Your task to perform on an android device: Show me popular videos on Youtube Image 0: 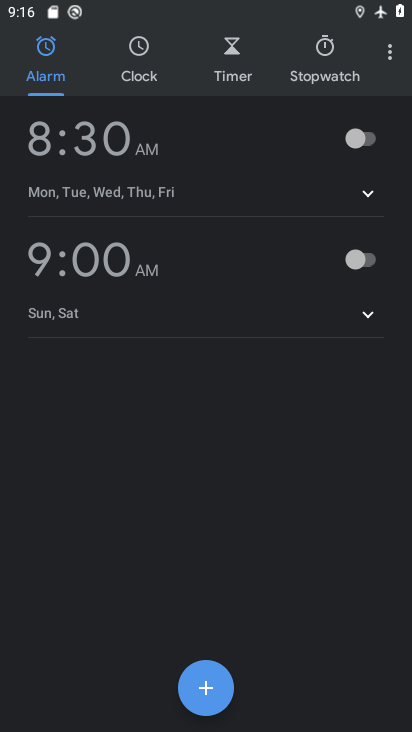
Step 0: press home button
Your task to perform on an android device: Show me popular videos on Youtube Image 1: 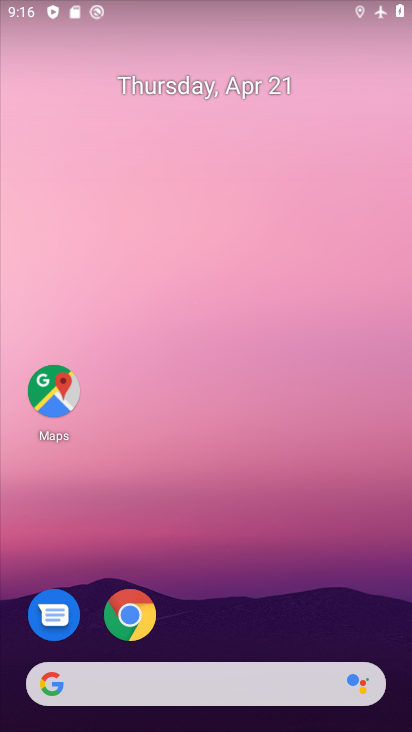
Step 1: drag from (206, 709) to (209, 124)
Your task to perform on an android device: Show me popular videos on Youtube Image 2: 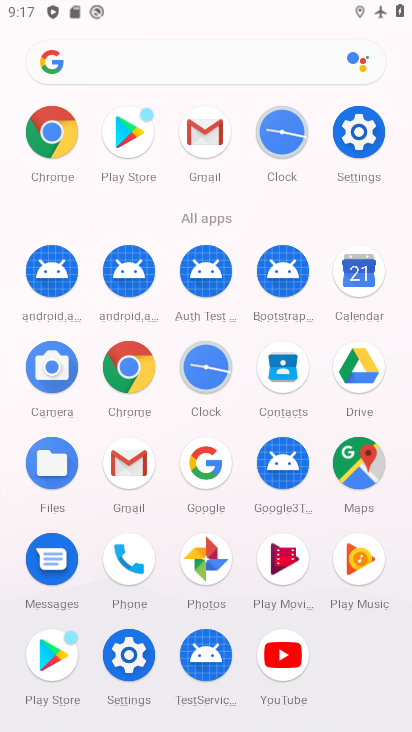
Step 2: click (283, 656)
Your task to perform on an android device: Show me popular videos on Youtube Image 3: 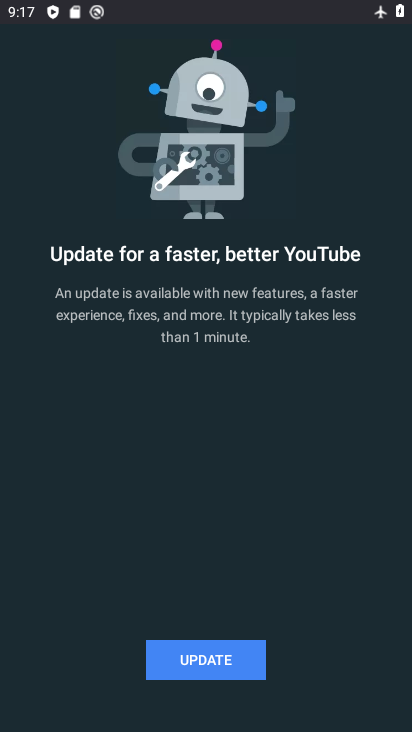
Step 3: click (204, 659)
Your task to perform on an android device: Show me popular videos on Youtube Image 4: 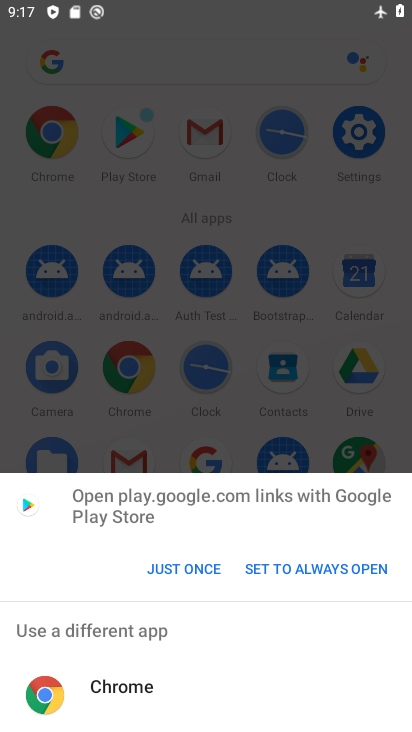
Step 4: click (179, 569)
Your task to perform on an android device: Show me popular videos on Youtube Image 5: 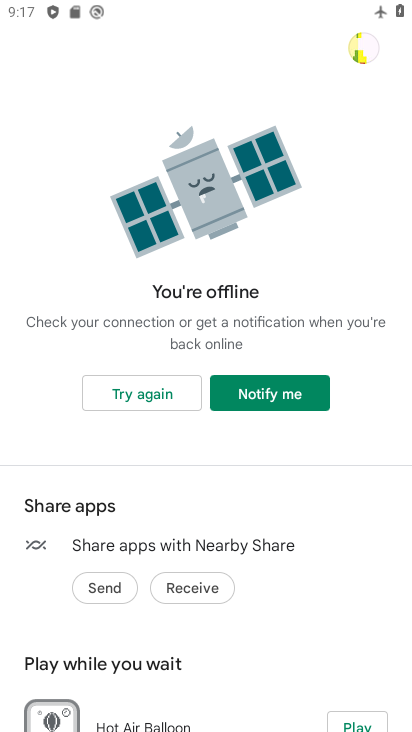
Step 5: task complete